Your task to perform on an android device: Go to internet settings Image 0: 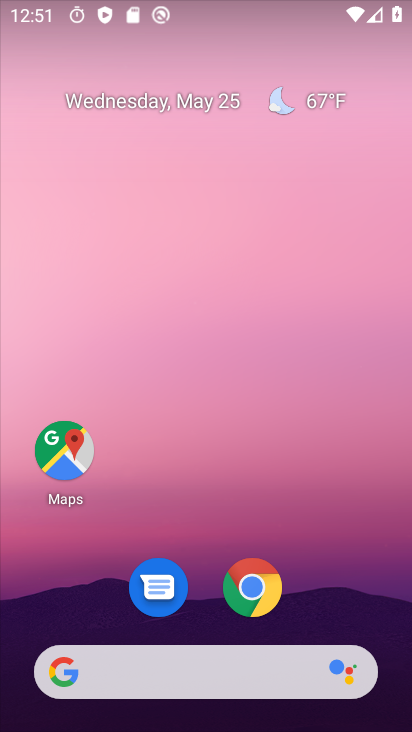
Step 0: drag from (200, 728) to (205, 81)
Your task to perform on an android device: Go to internet settings Image 1: 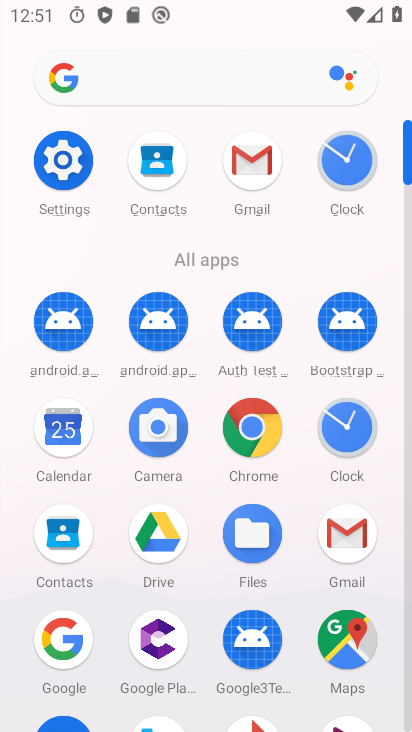
Step 1: click (66, 172)
Your task to perform on an android device: Go to internet settings Image 2: 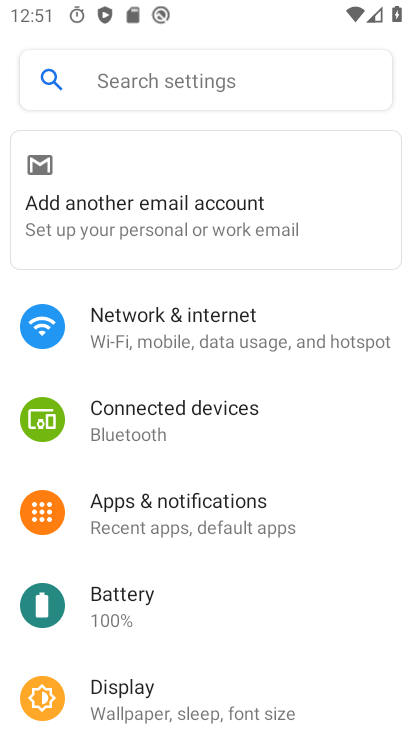
Step 2: click (146, 325)
Your task to perform on an android device: Go to internet settings Image 3: 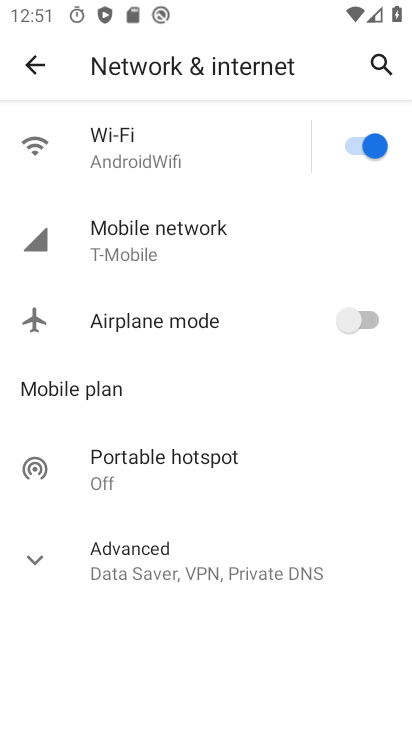
Step 3: task complete